Your task to perform on an android device: Do I have any events this weekend? Image 0: 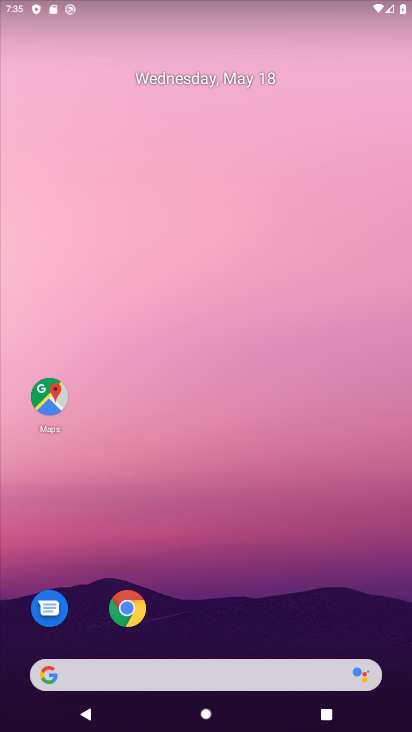
Step 0: drag from (328, 622) to (298, 137)
Your task to perform on an android device: Do I have any events this weekend? Image 1: 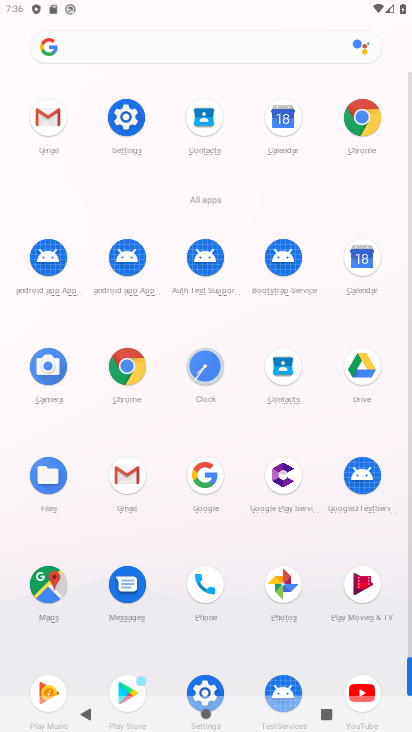
Step 1: drag from (240, 663) to (198, 231)
Your task to perform on an android device: Do I have any events this weekend? Image 2: 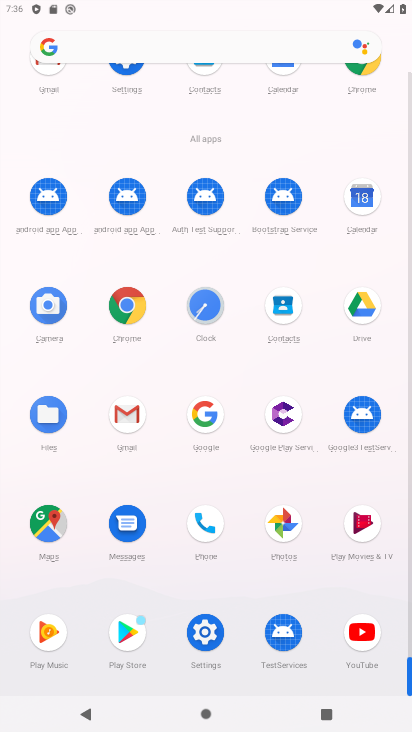
Step 2: drag from (161, 279) to (180, 469)
Your task to perform on an android device: Do I have any events this weekend? Image 3: 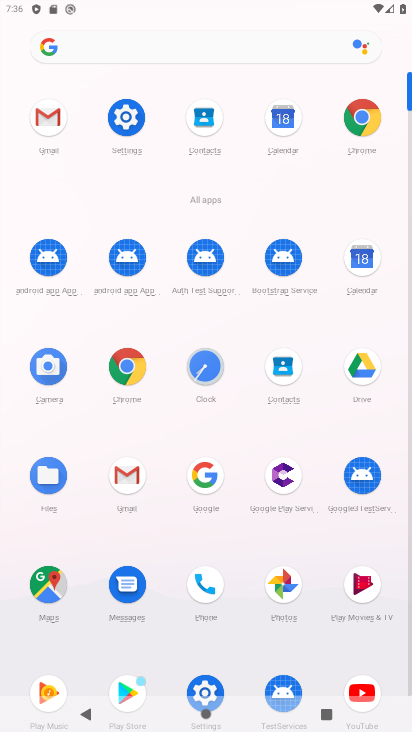
Step 3: click (366, 256)
Your task to perform on an android device: Do I have any events this weekend? Image 4: 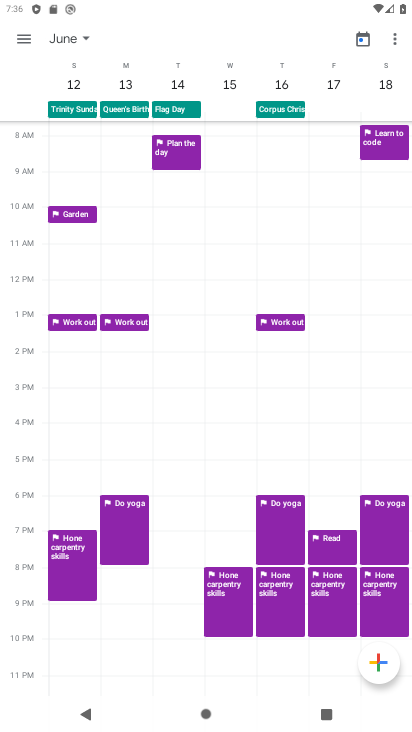
Step 4: click (73, 31)
Your task to perform on an android device: Do I have any events this weekend? Image 5: 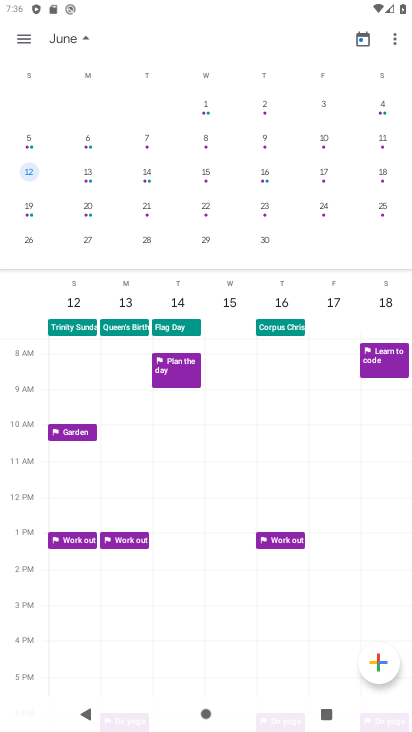
Step 5: drag from (110, 173) to (343, 159)
Your task to perform on an android device: Do I have any events this weekend? Image 6: 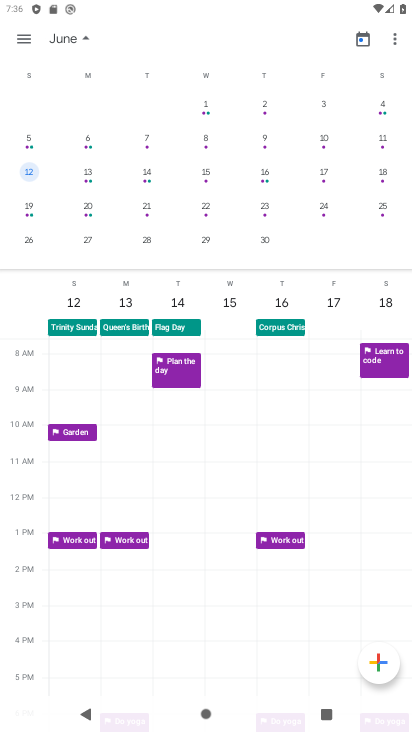
Step 6: drag from (53, 164) to (411, 173)
Your task to perform on an android device: Do I have any events this weekend? Image 7: 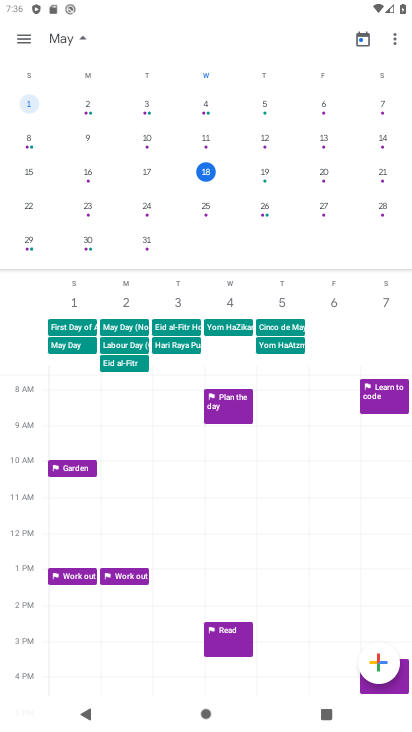
Step 7: click (327, 172)
Your task to perform on an android device: Do I have any events this weekend? Image 8: 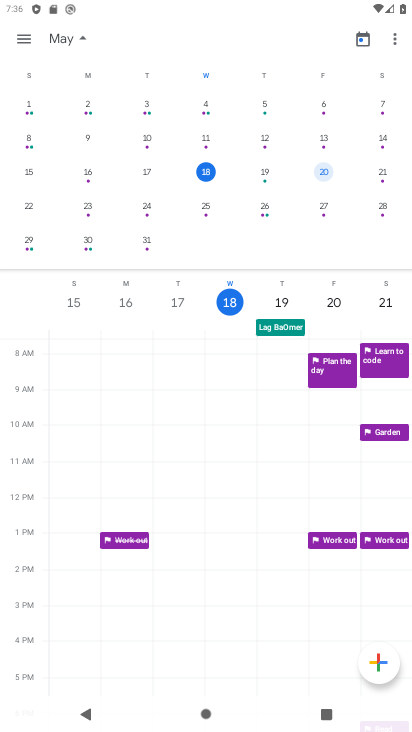
Step 8: click (26, 35)
Your task to perform on an android device: Do I have any events this weekend? Image 9: 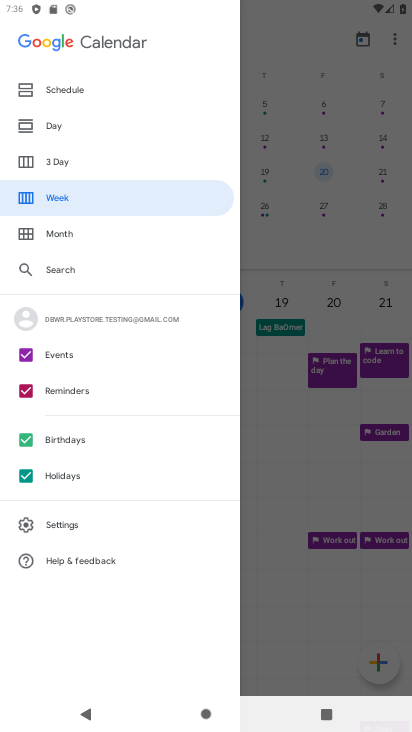
Step 9: click (63, 161)
Your task to perform on an android device: Do I have any events this weekend? Image 10: 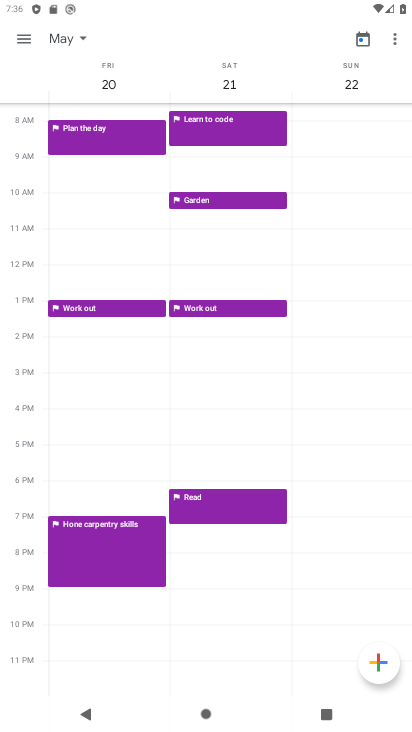
Step 10: task complete